Your task to perform on an android device: open app "Airtel Thanks" Image 0: 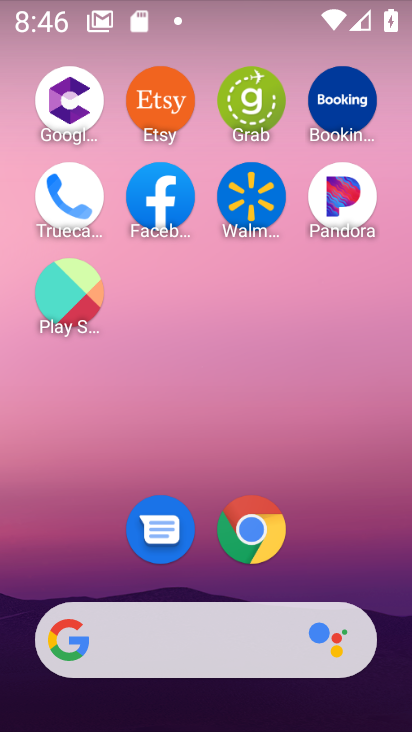
Step 0: drag from (216, 692) to (266, 346)
Your task to perform on an android device: open app "Airtel Thanks" Image 1: 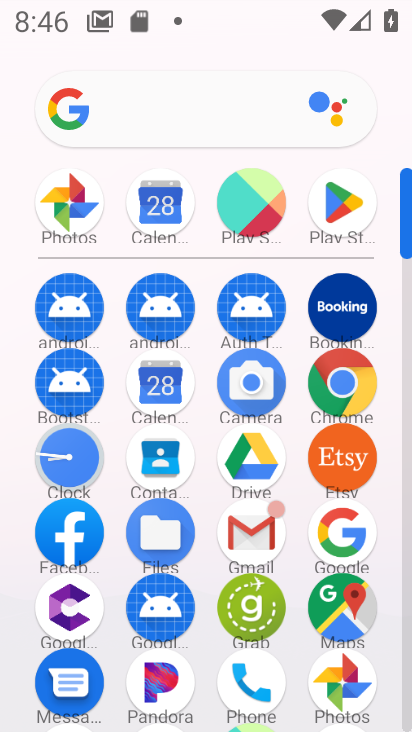
Step 1: click (344, 215)
Your task to perform on an android device: open app "Airtel Thanks" Image 2: 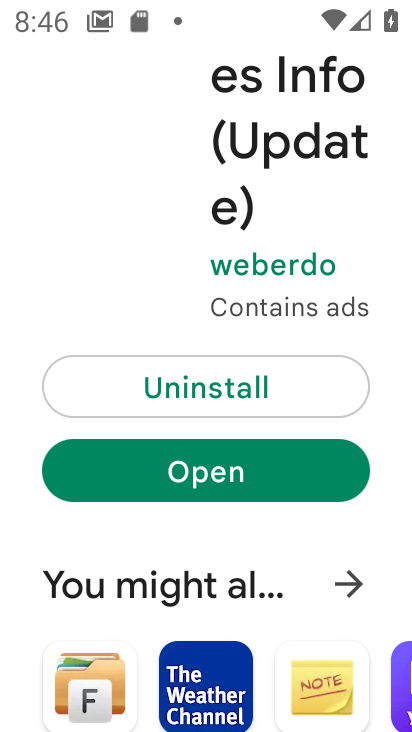
Step 2: drag from (292, 111) to (303, 444)
Your task to perform on an android device: open app "Airtel Thanks" Image 3: 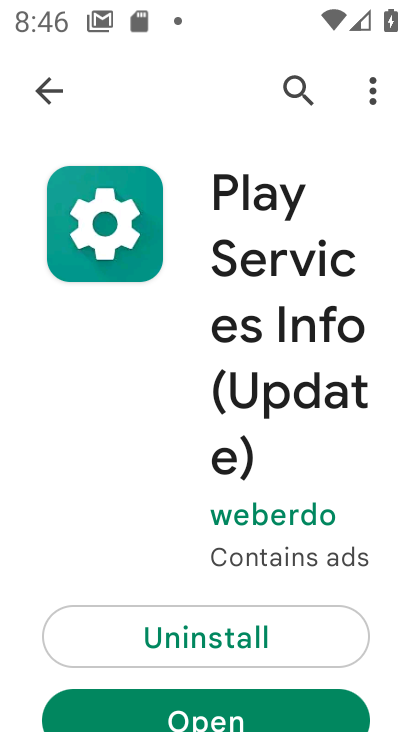
Step 3: click (294, 95)
Your task to perform on an android device: open app "Airtel Thanks" Image 4: 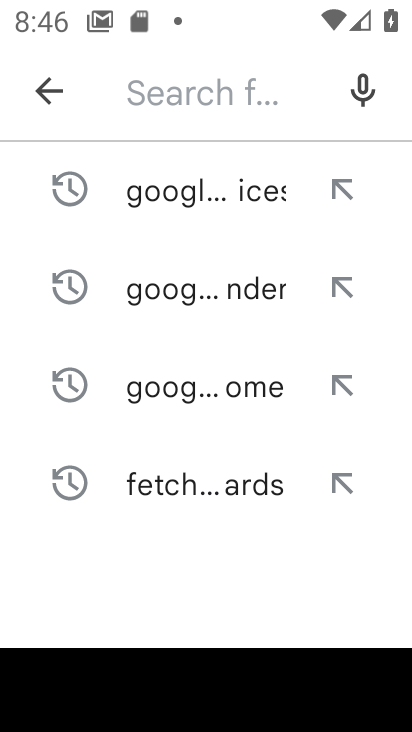
Step 4: type "Airtel Thanks"
Your task to perform on an android device: open app "Airtel Thanks" Image 5: 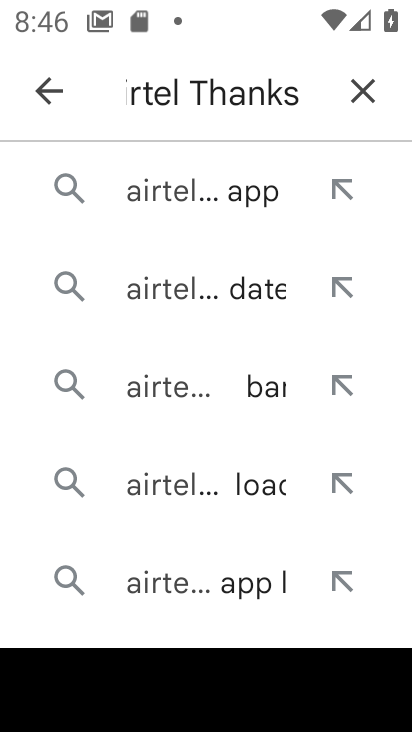
Step 5: click (179, 189)
Your task to perform on an android device: open app "Airtel Thanks" Image 6: 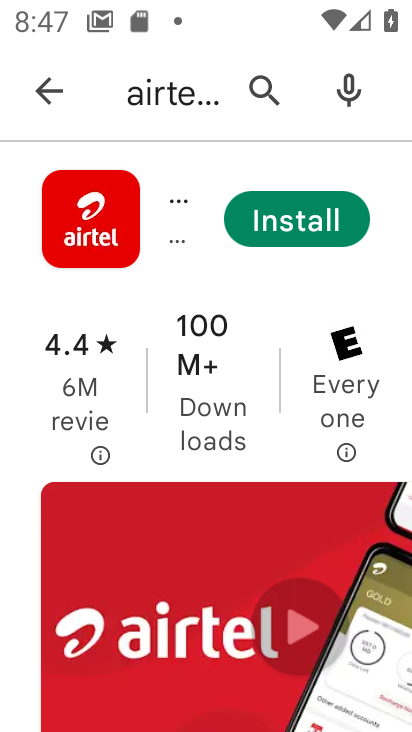
Step 6: task complete